Your task to perform on an android device: Open notification settings Image 0: 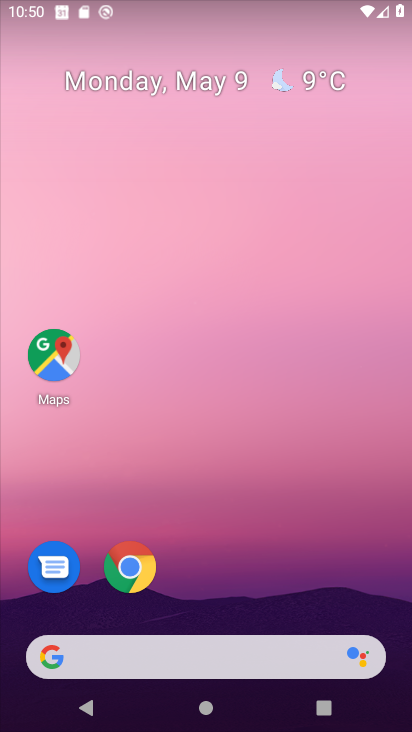
Step 0: drag from (217, 604) to (220, 125)
Your task to perform on an android device: Open notification settings Image 1: 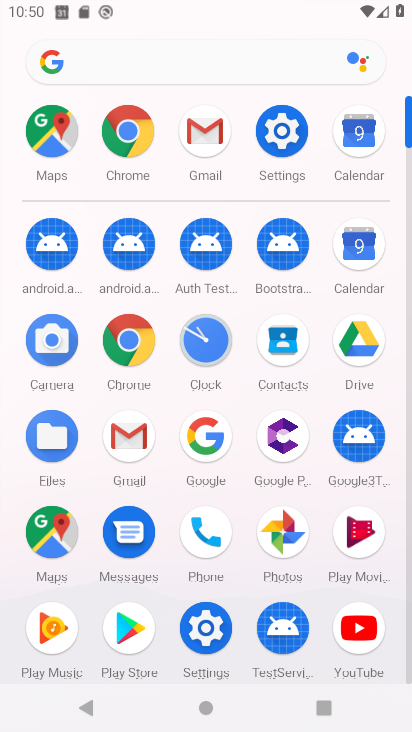
Step 1: click (280, 126)
Your task to perform on an android device: Open notification settings Image 2: 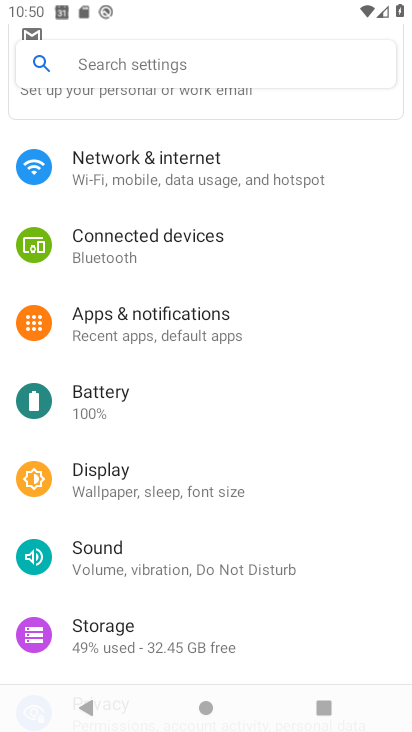
Step 2: click (241, 316)
Your task to perform on an android device: Open notification settings Image 3: 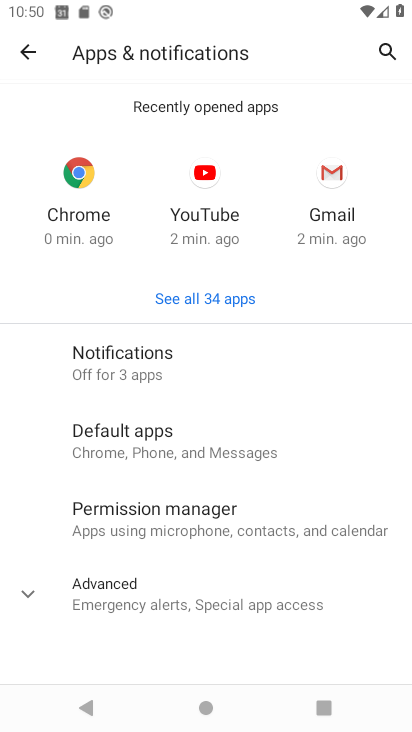
Step 3: click (182, 363)
Your task to perform on an android device: Open notification settings Image 4: 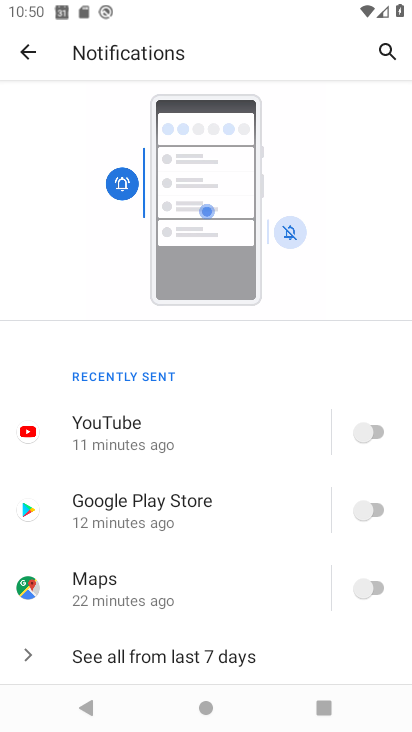
Step 4: drag from (228, 613) to (252, 189)
Your task to perform on an android device: Open notification settings Image 5: 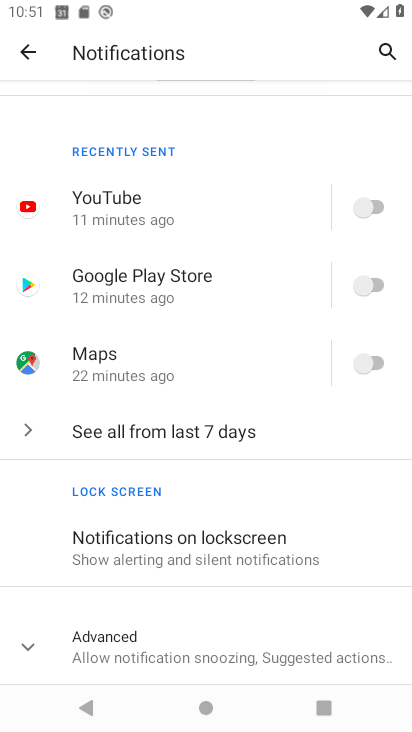
Step 5: click (368, 205)
Your task to perform on an android device: Open notification settings Image 6: 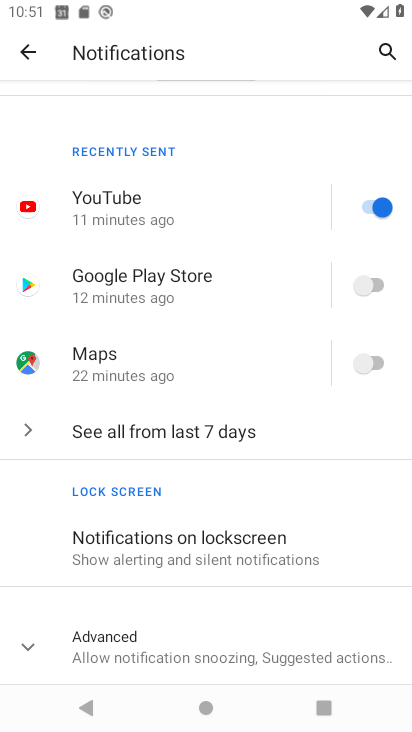
Step 6: click (373, 281)
Your task to perform on an android device: Open notification settings Image 7: 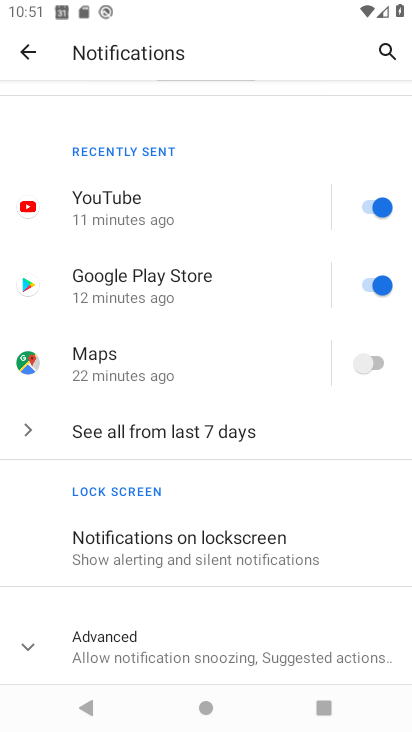
Step 7: click (373, 366)
Your task to perform on an android device: Open notification settings Image 8: 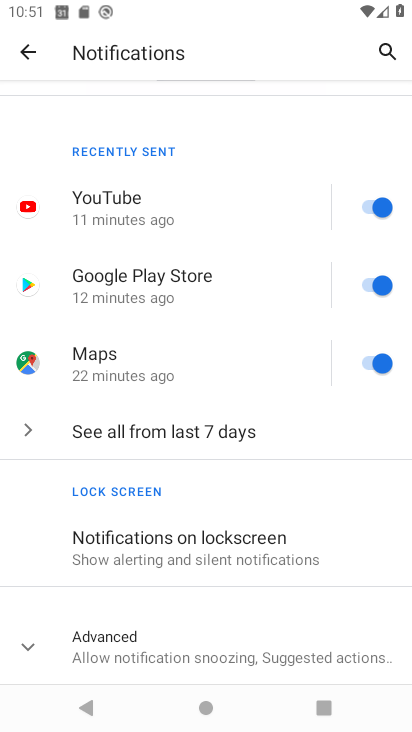
Step 8: task complete